Your task to perform on an android device: open the mobile data screen to see how much data has been used Image 0: 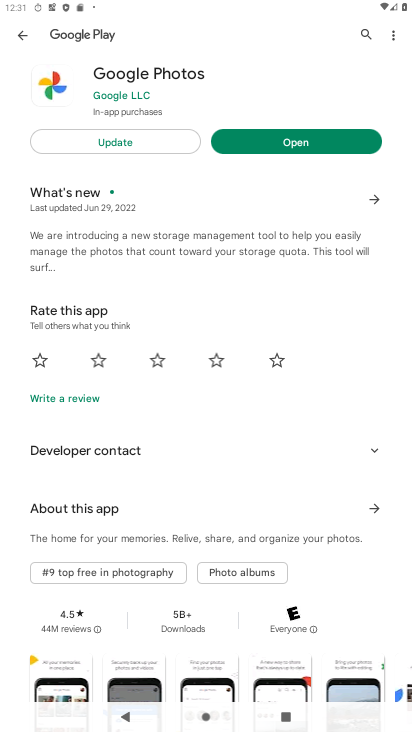
Step 0: press home button
Your task to perform on an android device: open the mobile data screen to see how much data has been used Image 1: 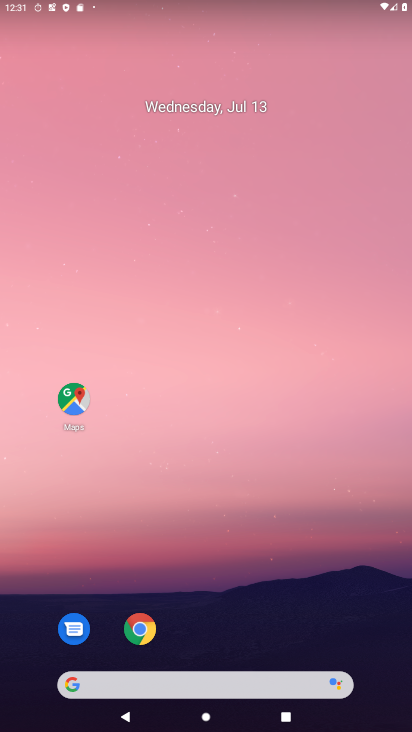
Step 1: drag from (225, 642) to (156, 147)
Your task to perform on an android device: open the mobile data screen to see how much data has been used Image 2: 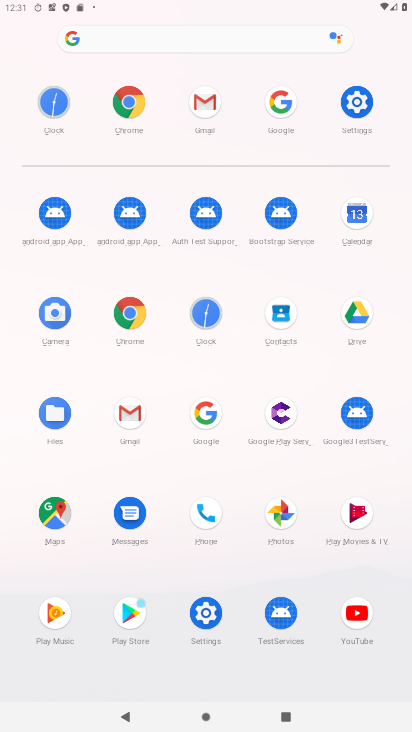
Step 2: click (365, 102)
Your task to perform on an android device: open the mobile data screen to see how much data has been used Image 3: 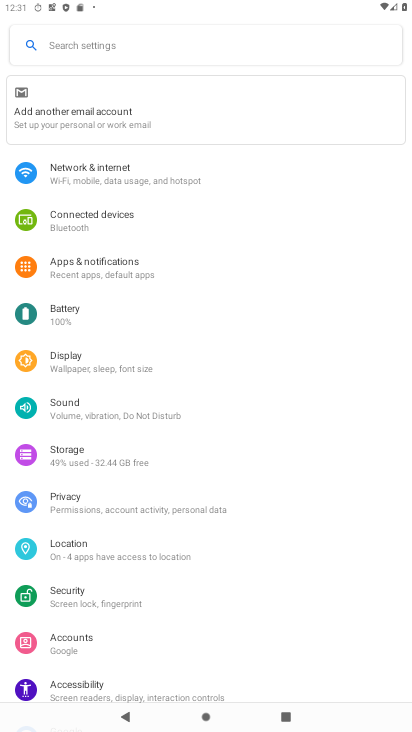
Step 3: click (154, 195)
Your task to perform on an android device: open the mobile data screen to see how much data has been used Image 4: 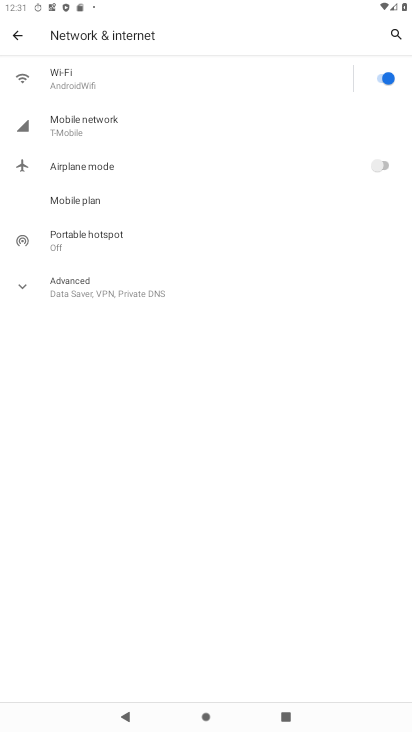
Step 4: click (121, 132)
Your task to perform on an android device: open the mobile data screen to see how much data has been used Image 5: 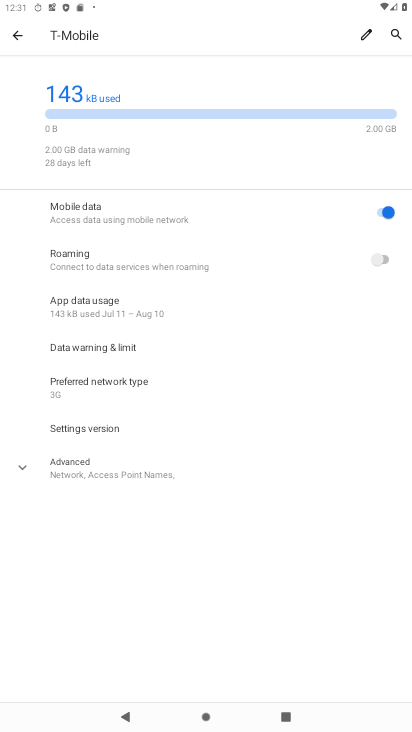
Step 5: click (166, 312)
Your task to perform on an android device: open the mobile data screen to see how much data has been used Image 6: 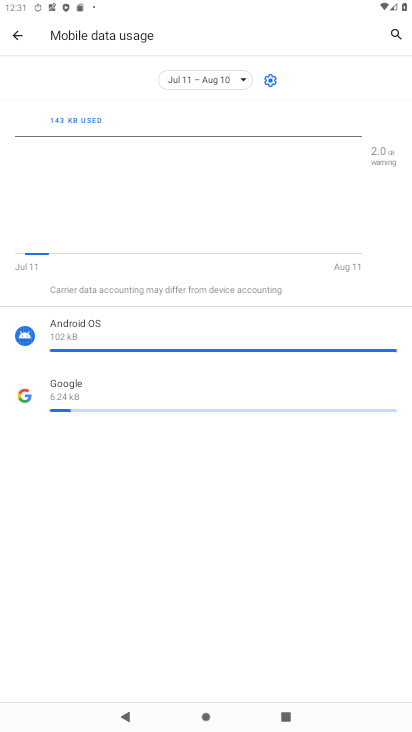
Step 6: task complete